Your task to perform on an android device: Go to display settings Image 0: 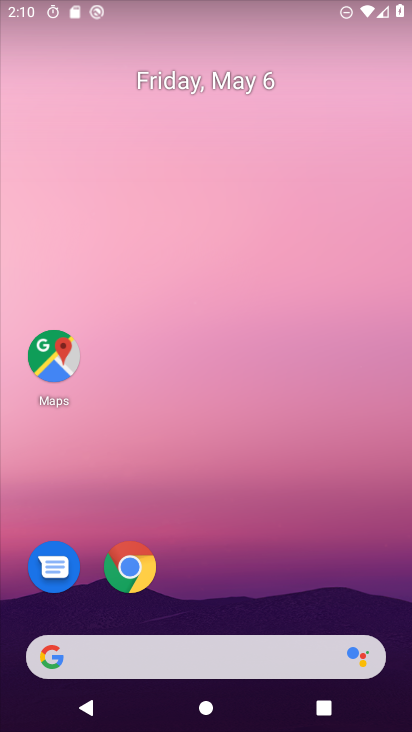
Step 0: drag from (277, 681) to (256, 221)
Your task to perform on an android device: Go to display settings Image 1: 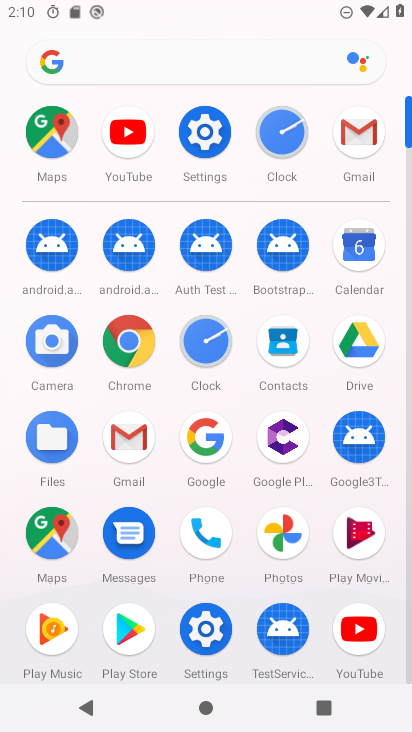
Step 1: click (229, 126)
Your task to perform on an android device: Go to display settings Image 2: 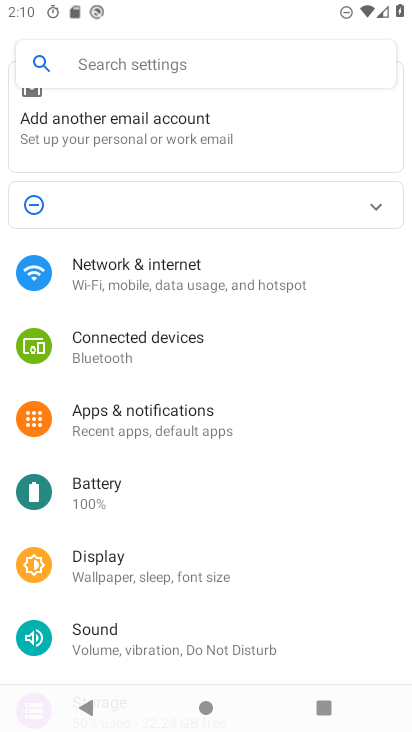
Step 2: click (148, 557)
Your task to perform on an android device: Go to display settings Image 3: 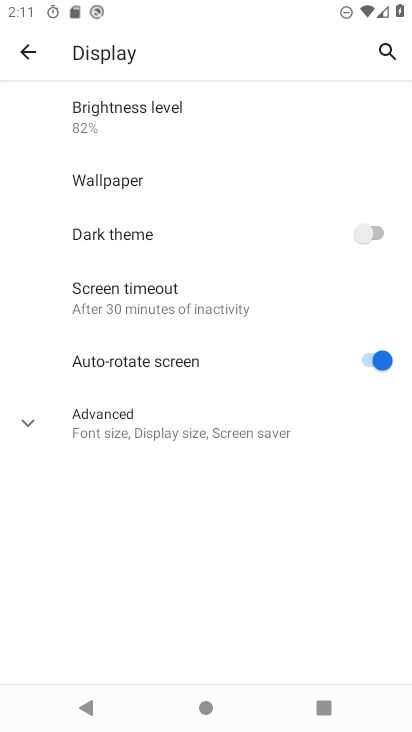
Step 3: task complete